Your task to perform on an android device: toggle show notifications on the lock screen Image 0: 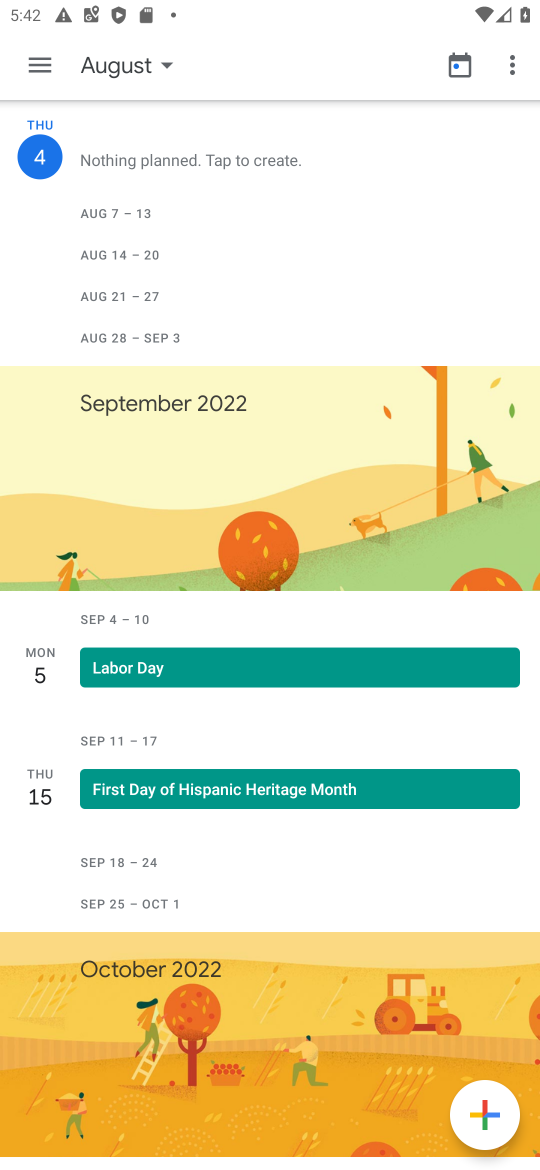
Step 0: press home button
Your task to perform on an android device: toggle show notifications on the lock screen Image 1: 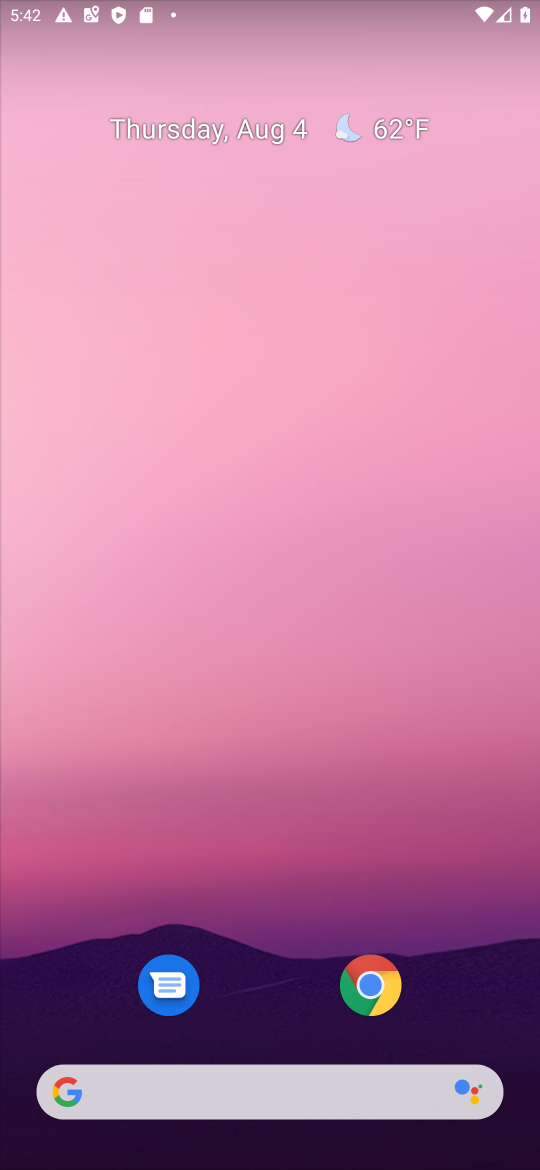
Step 1: drag from (258, 1100) to (96, 74)
Your task to perform on an android device: toggle show notifications on the lock screen Image 2: 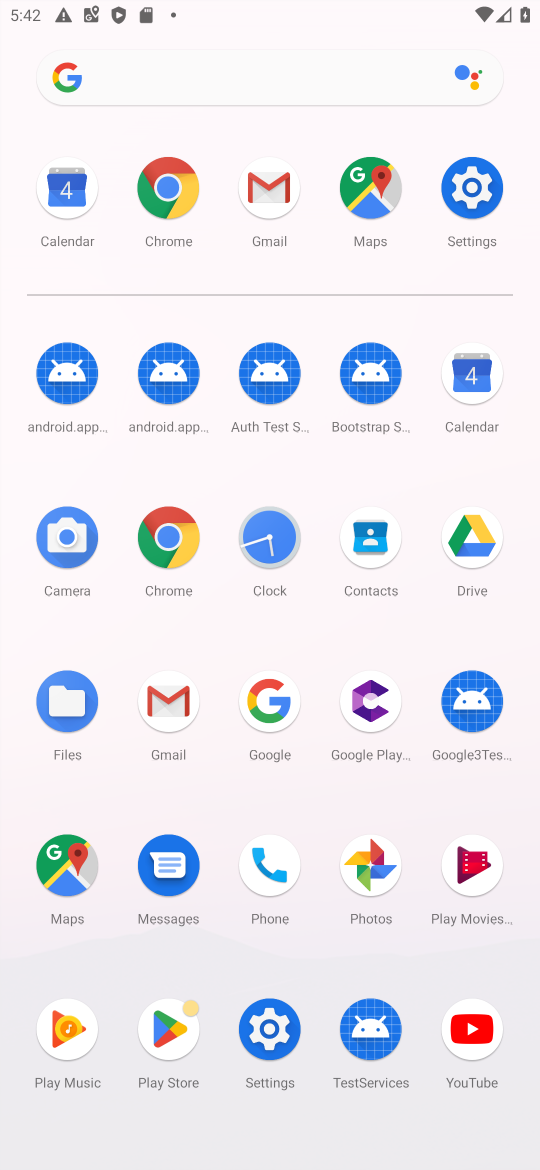
Step 2: click (475, 193)
Your task to perform on an android device: toggle show notifications on the lock screen Image 3: 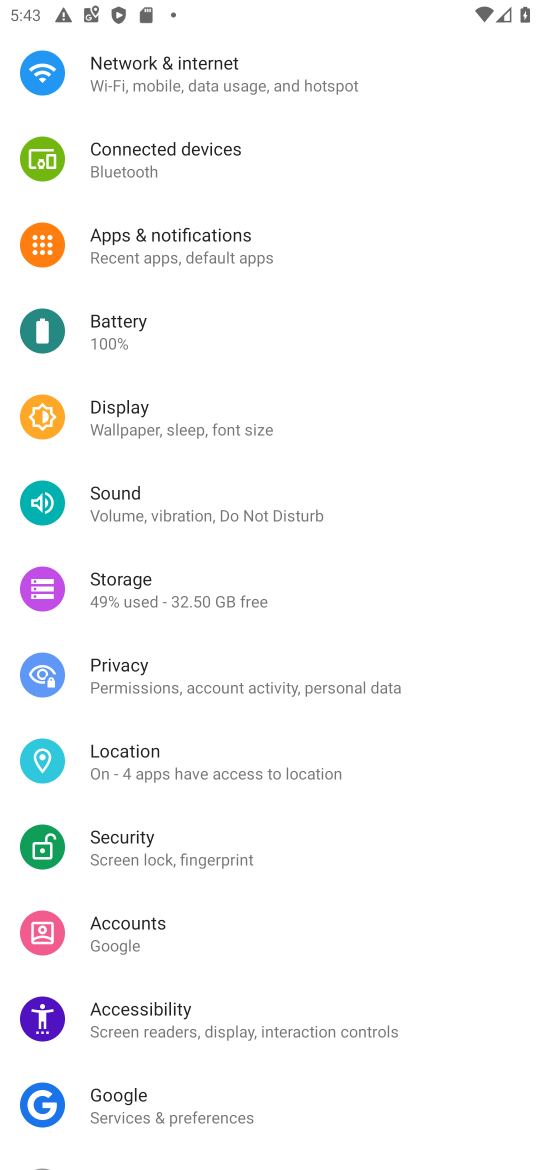
Step 3: click (246, 239)
Your task to perform on an android device: toggle show notifications on the lock screen Image 4: 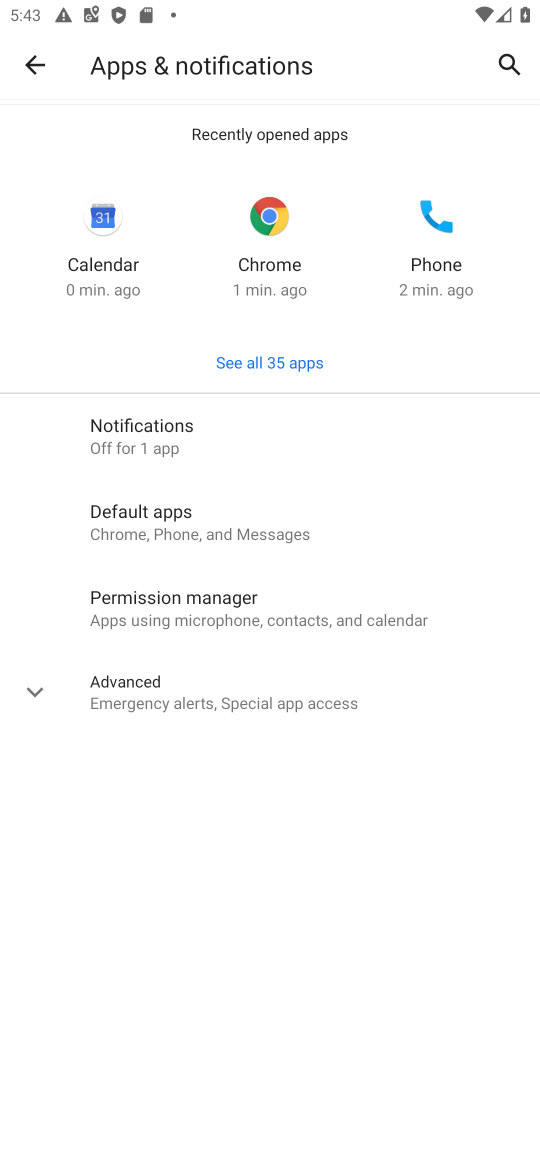
Step 4: click (183, 697)
Your task to perform on an android device: toggle show notifications on the lock screen Image 5: 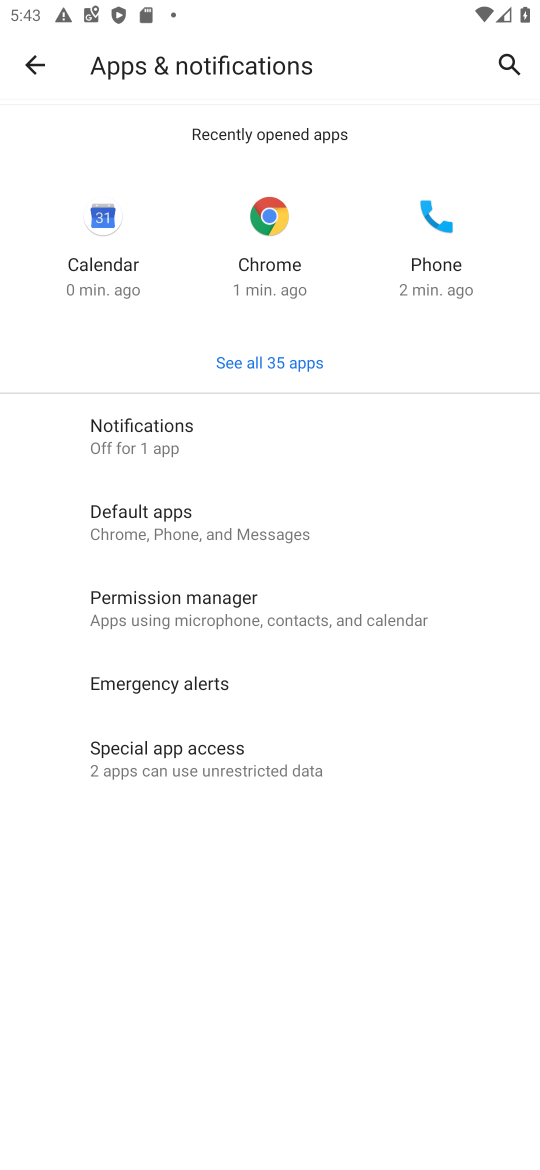
Step 5: click (192, 448)
Your task to perform on an android device: toggle show notifications on the lock screen Image 6: 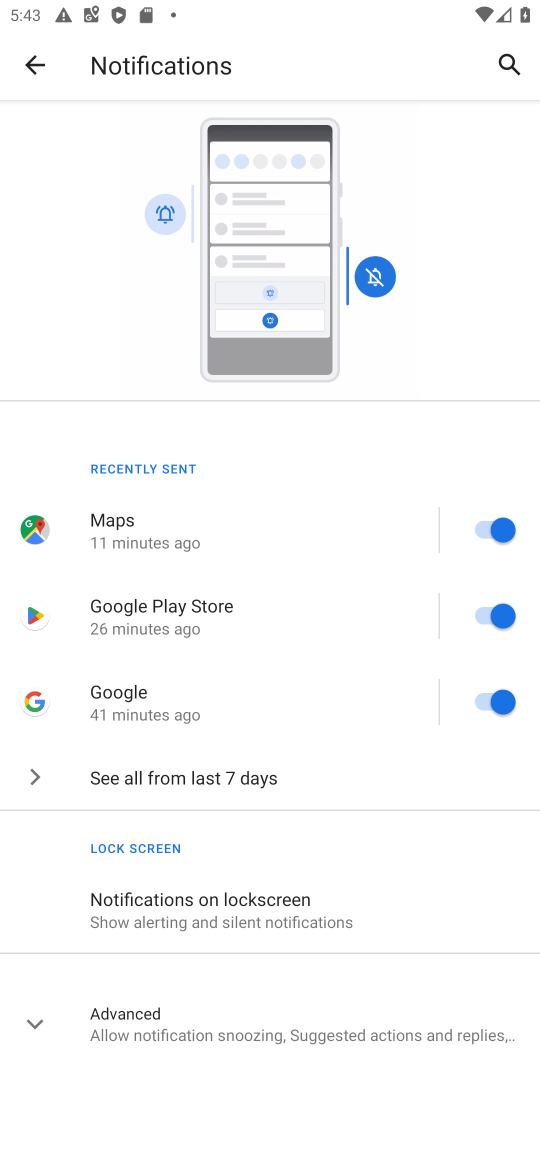
Step 6: click (247, 882)
Your task to perform on an android device: toggle show notifications on the lock screen Image 7: 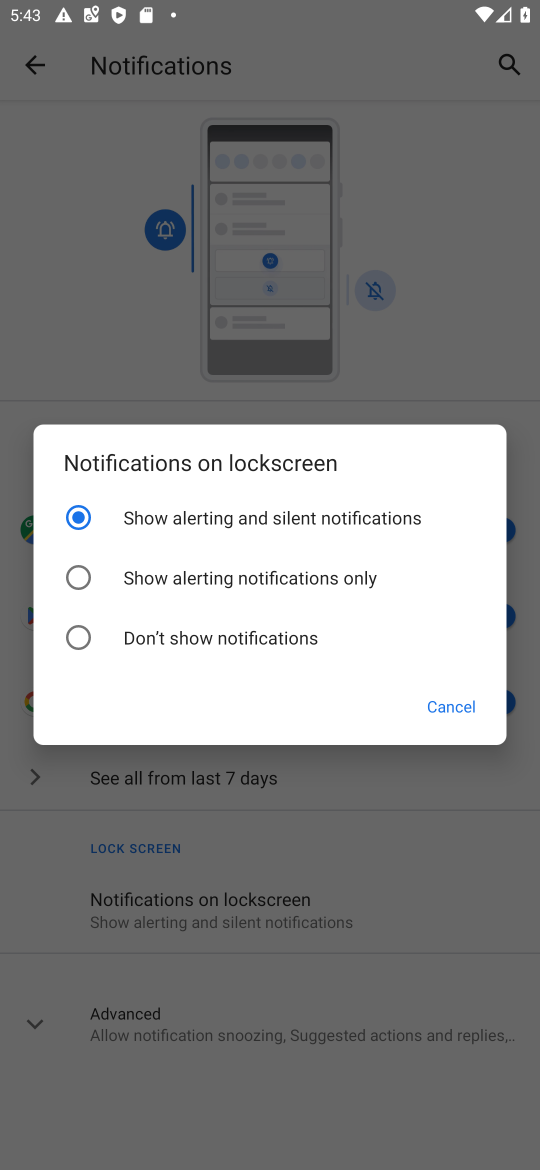
Step 7: click (191, 537)
Your task to perform on an android device: toggle show notifications on the lock screen Image 8: 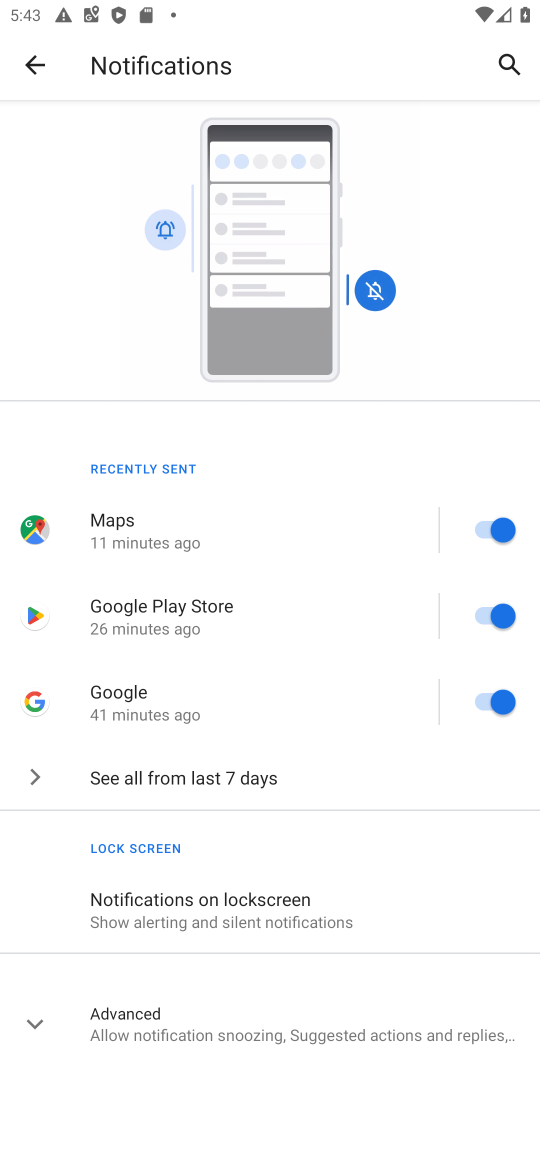
Step 8: task complete